Your task to perform on an android device: Open calendar and show me the second week of next month Image 0: 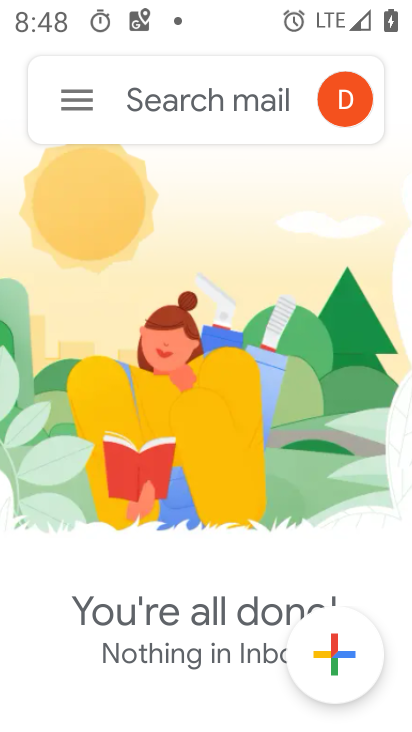
Step 0: press home button
Your task to perform on an android device: Open calendar and show me the second week of next month Image 1: 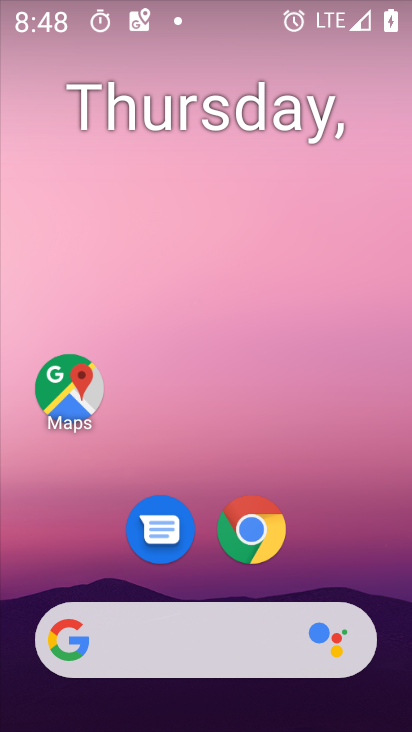
Step 1: drag from (361, 570) to (345, 260)
Your task to perform on an android device: Open calendar and show me the second week of next month Image 2: 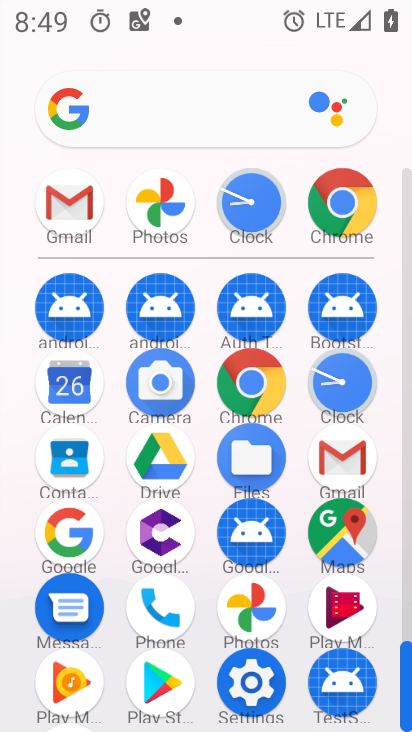
Step 2: click (77, 391)
Your task to perform on an android device: Open calendar and show me the second week of next month Image 3: 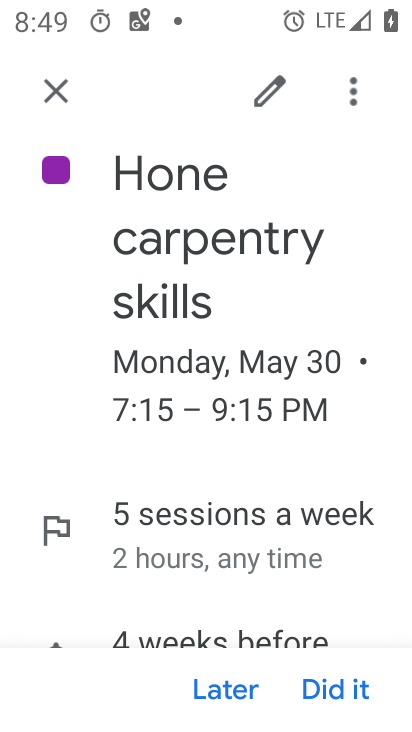
Step 3: click (50, 100)
Your task to perform on an android device: Open calendar and show me the second week of next month Image 4: 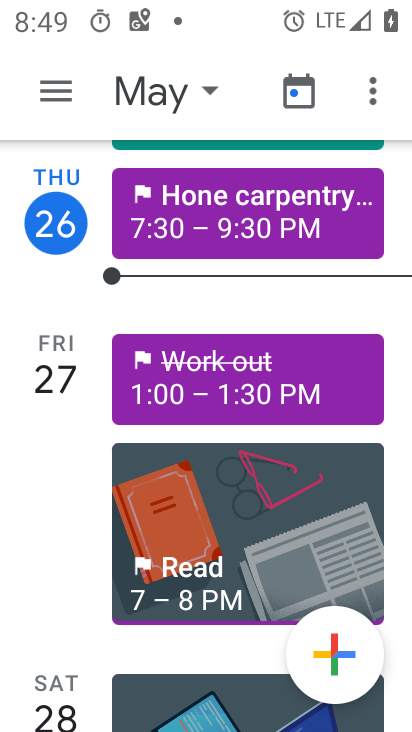
Step 4: click (211, 87)
Your task to perform on an android device: Open calendar and show me the second week of next month Image 5: 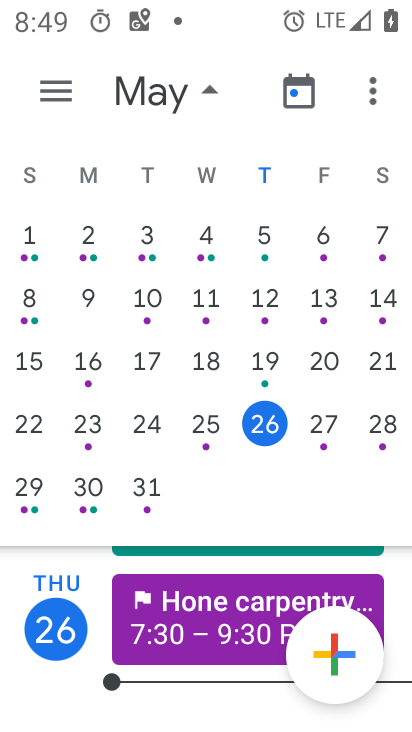
Step 5: drag from (398, 202) to (6, 200)
Your task to perform on an android device: Open calendar and show me the second week of next month Image 6: 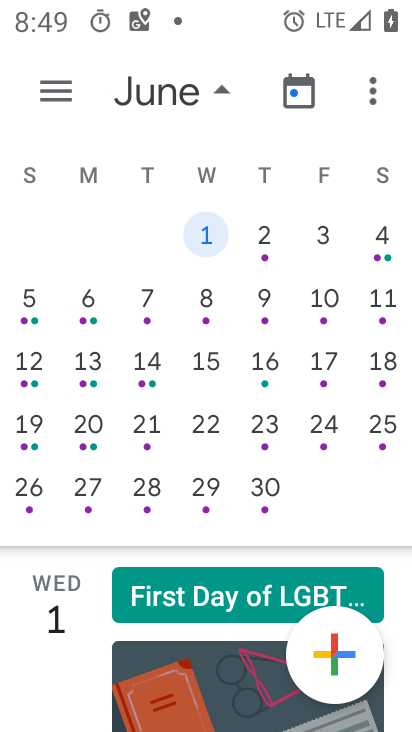
Step 6: click (95, 308)
Your task to perform on an android device: Open calendar and show me the second week of next month Image 7: 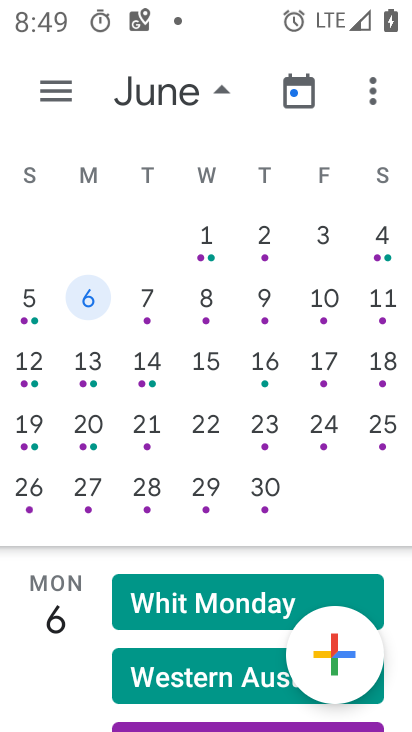
Step 7: task complete